Your task to perform on an android device: empty trash in google photos Image 0: 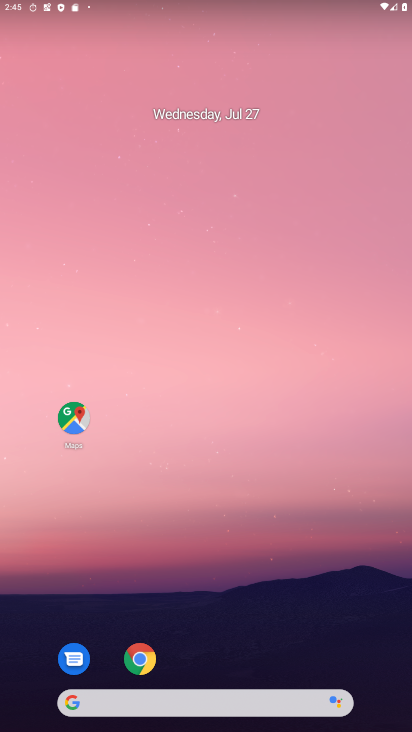
Step 0: drag from (193, 730) to (193, 140)
Your task to perform on an android device: empty trash in google photos Image 1: 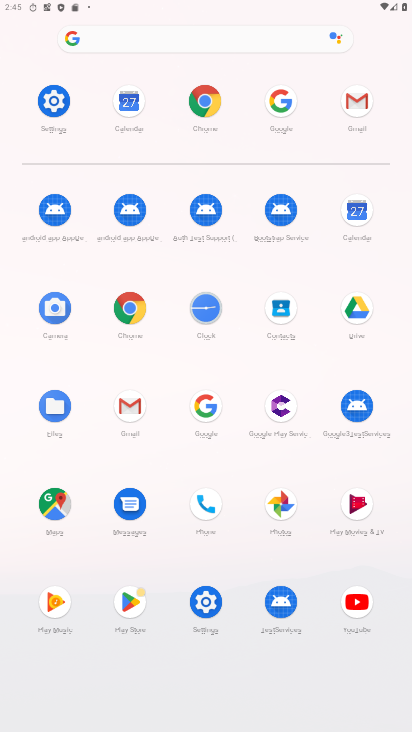
Step 1: click (278, 506)
Your task to perform on an android device: empty trash in google photos Image 2: 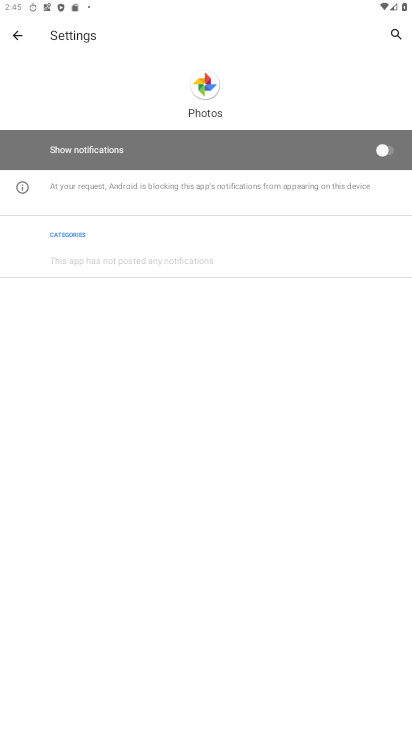
Step 2: click (16, 35)
Your task to perform on an android device: empty trash in google photos Image 3: 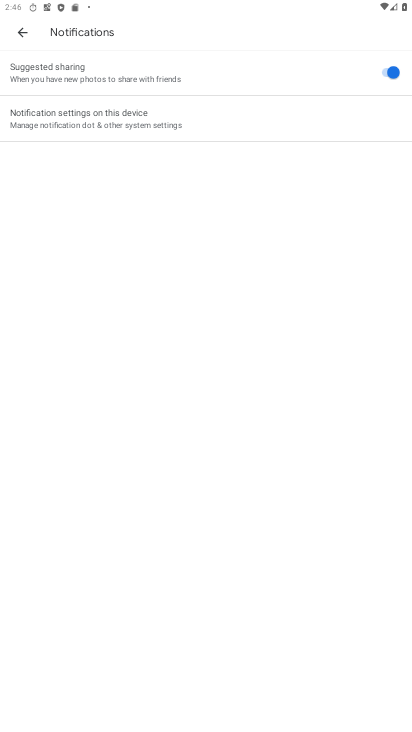
Step 3: click (23, 33)
Your task to perform on an android device: empty trash in google photos Image 4: 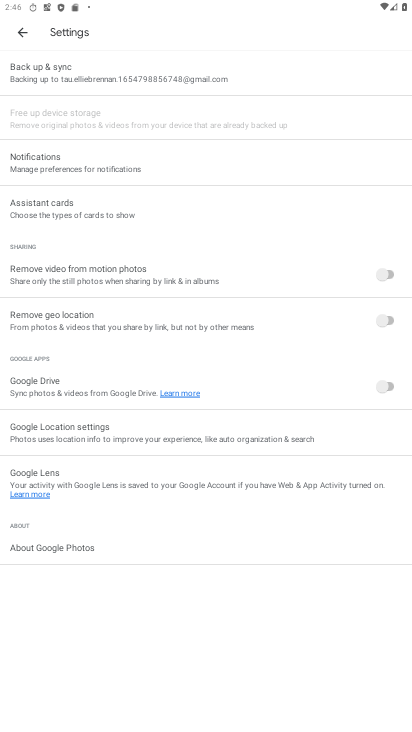
Step 4: click (23, 33)
Your task to perform on an android device: empty trash in google photos Image 5: 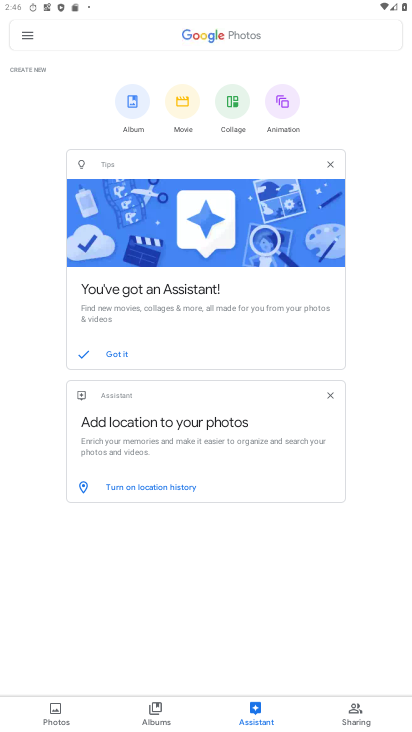
Step 5: click (27, 36)
Your task to perform on an android device: empty trash in google photos Image 6: 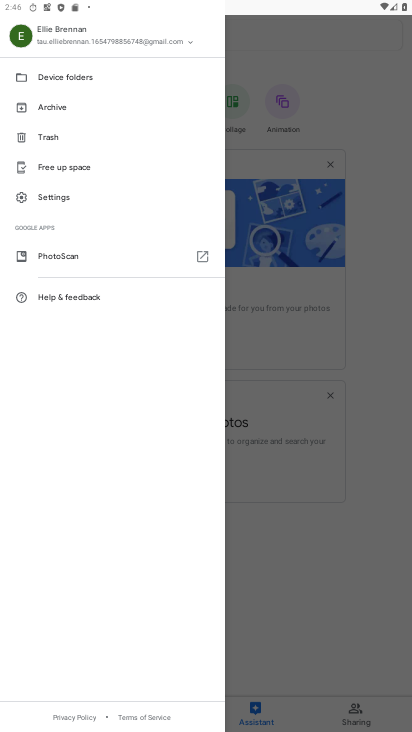
Step 6: click (49, 139)
Your task to perform on an android device: empty trash in google photos Image 7: 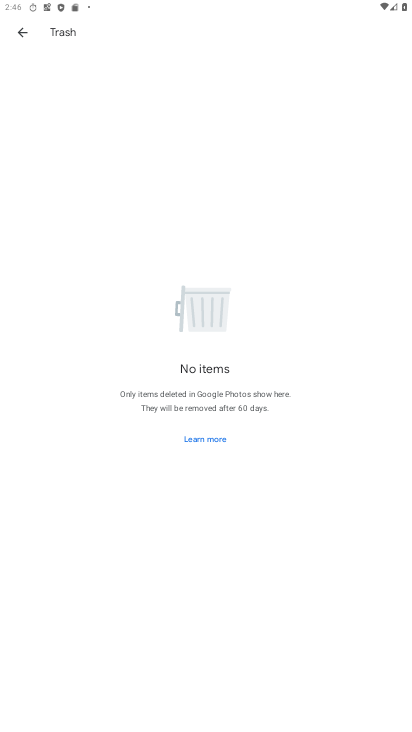
Step 7: task complete